Your task to perform on an android device: Open Google Maps and go to "Timeline" Image 0: 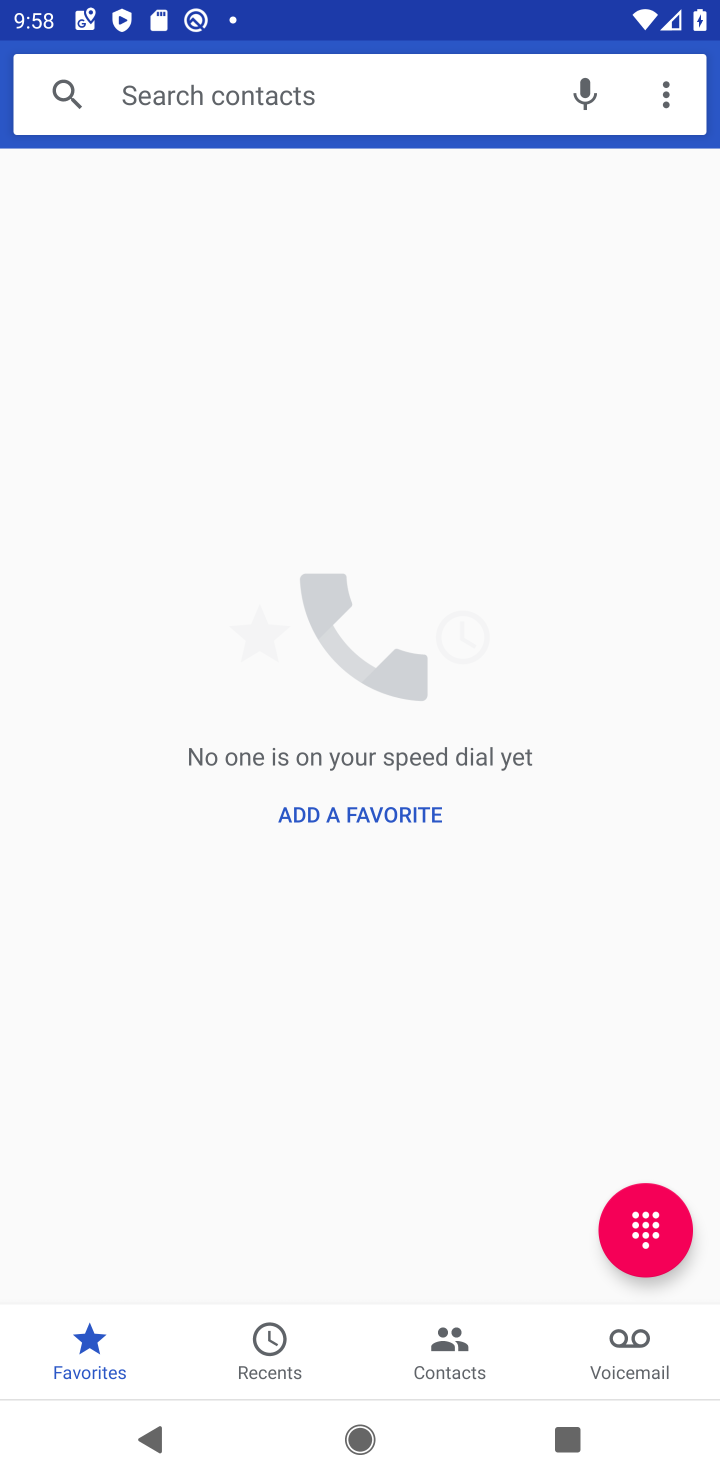
Step 0: press home button
Your task to perform on an android device: Open Google Maps and go to "Timeline" Image 1: 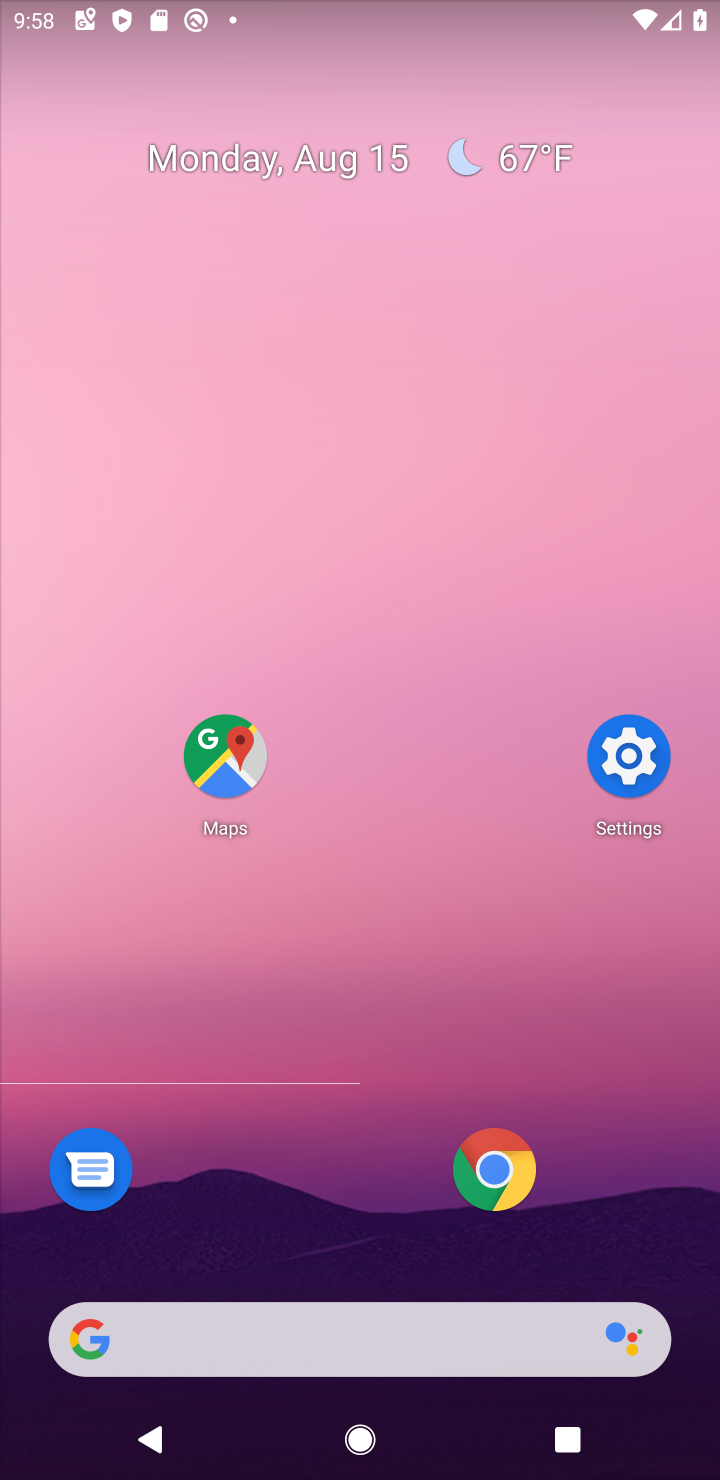
Step 1: click (216, 757)
Your task to perform on an android device: Open Google Maps and go to "Timeline" Image 2: 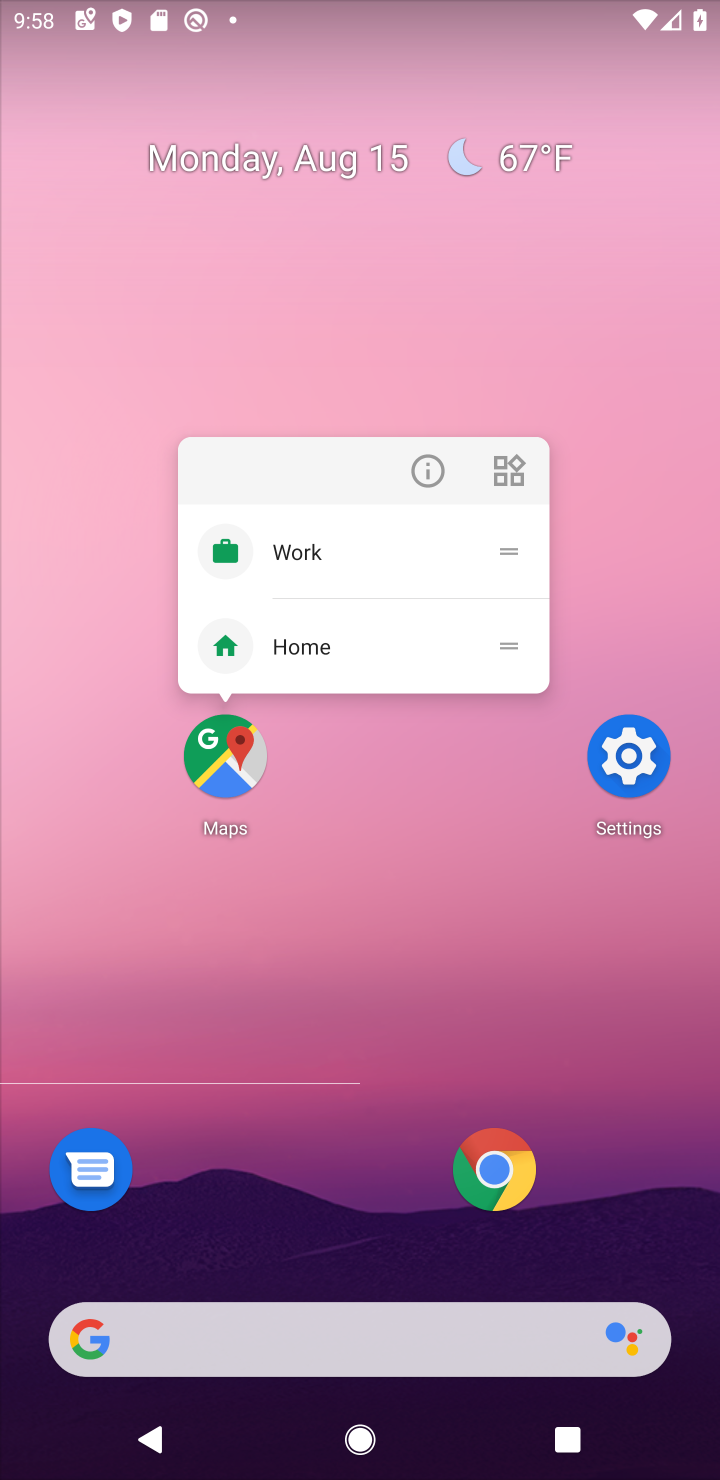
Step 2: click (231, 748)
Your task to perform on an android device: Open Google Maps and go to "Timeline" Image 3: 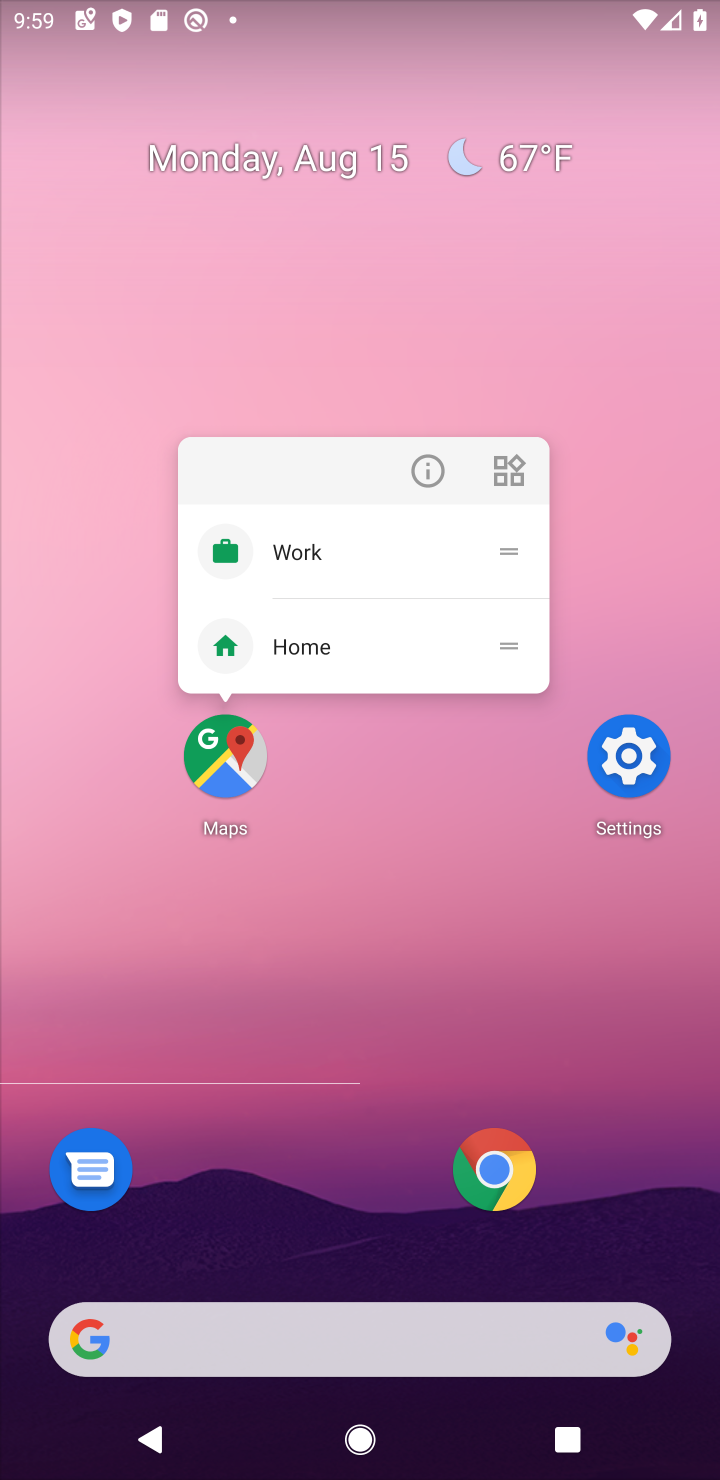
Step 3: click (231, 748)
Your task to perform on an android device: Open Google Maps and go to "Timeline" Image 4: 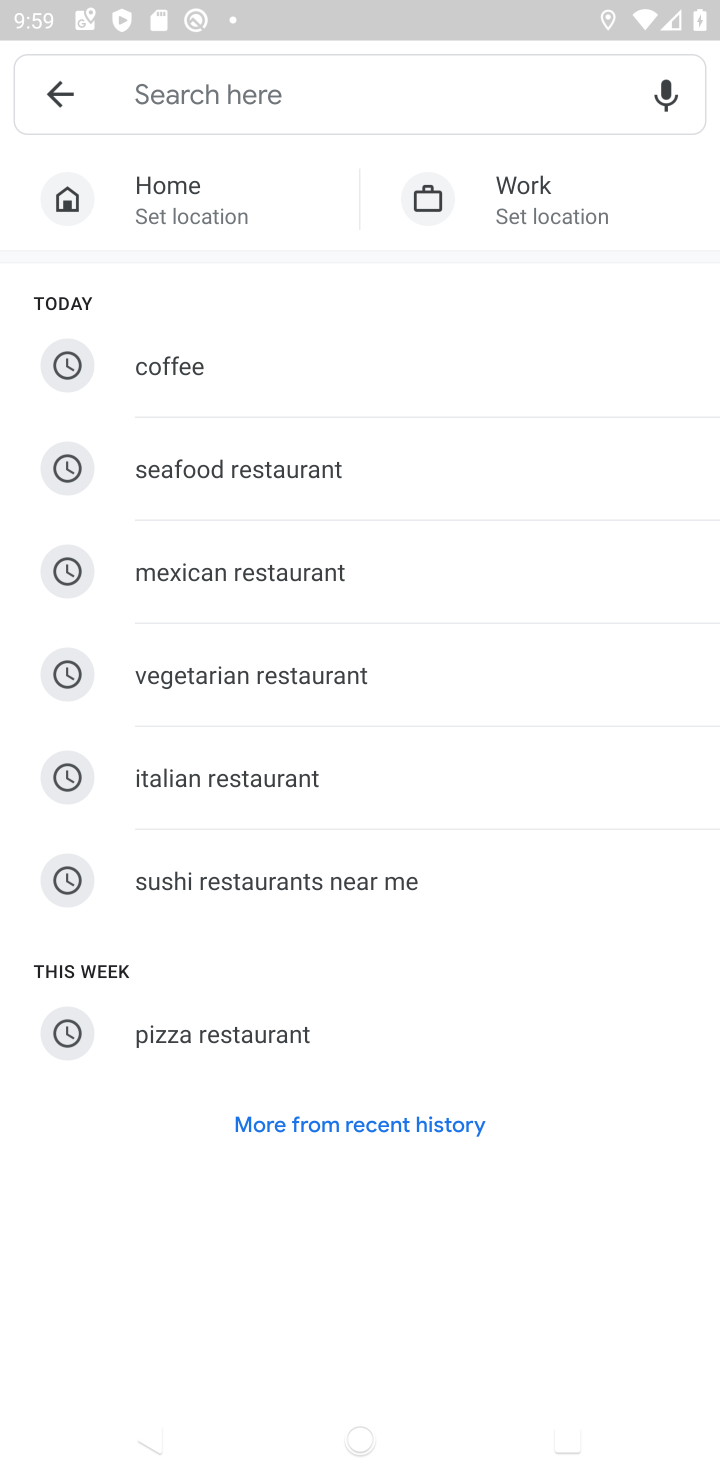
Step 4: click (61, 94)
Your task to perform on an android device: Open Google Maps and go to "Timeline" Image 5: 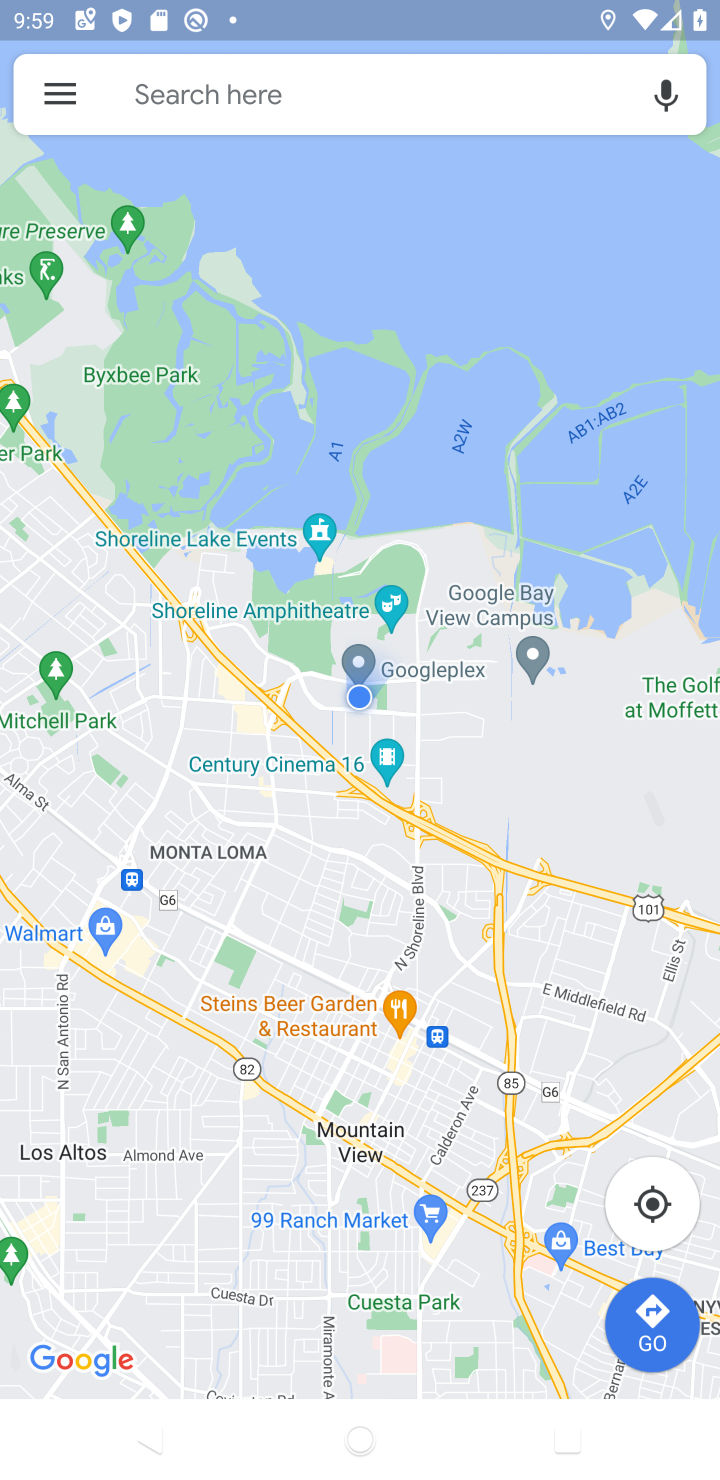
Step 5: click (61, 94)
Your task to perform on an android device: Open Google Maps and go to "Timeline" Image 6: 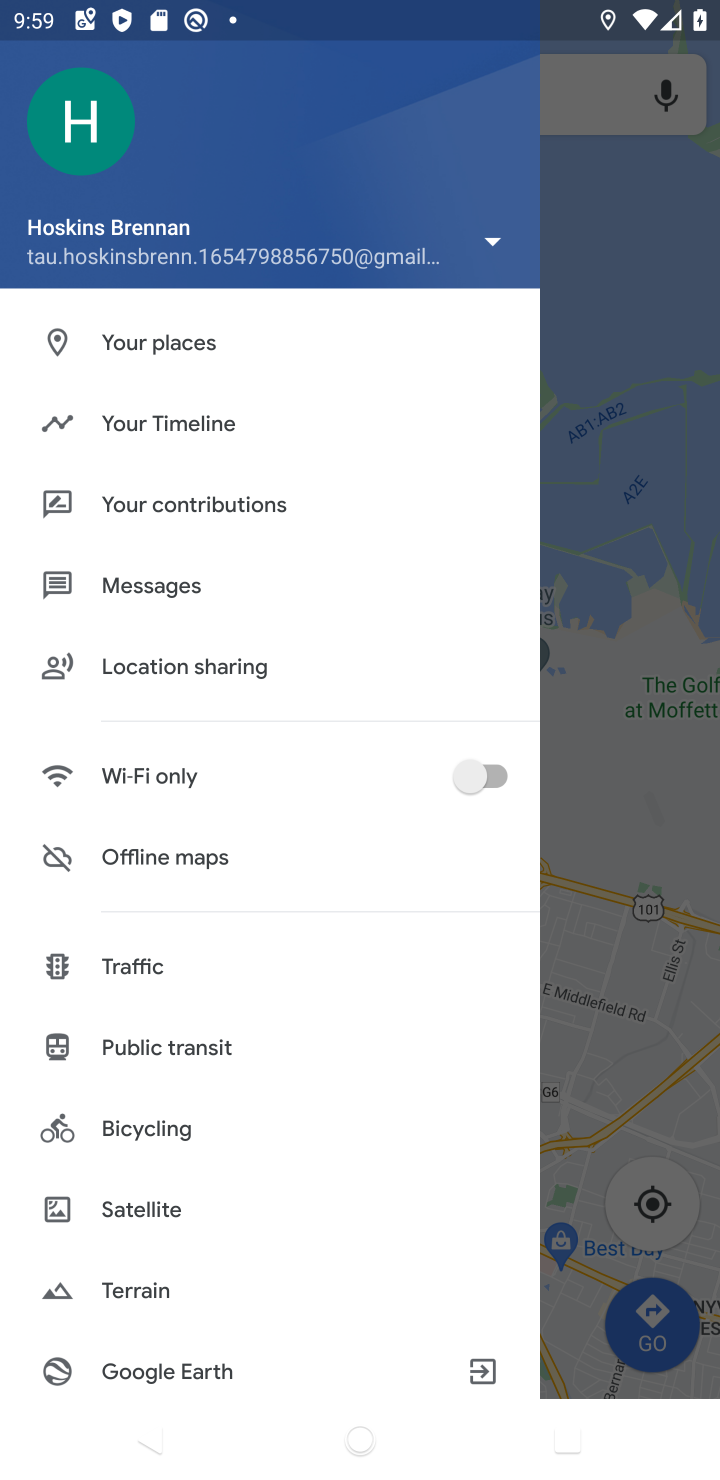
Step 6: click (187, 413)
Your task to perform on an android device: Open Google Maps and go to "Timeline" Image 7: 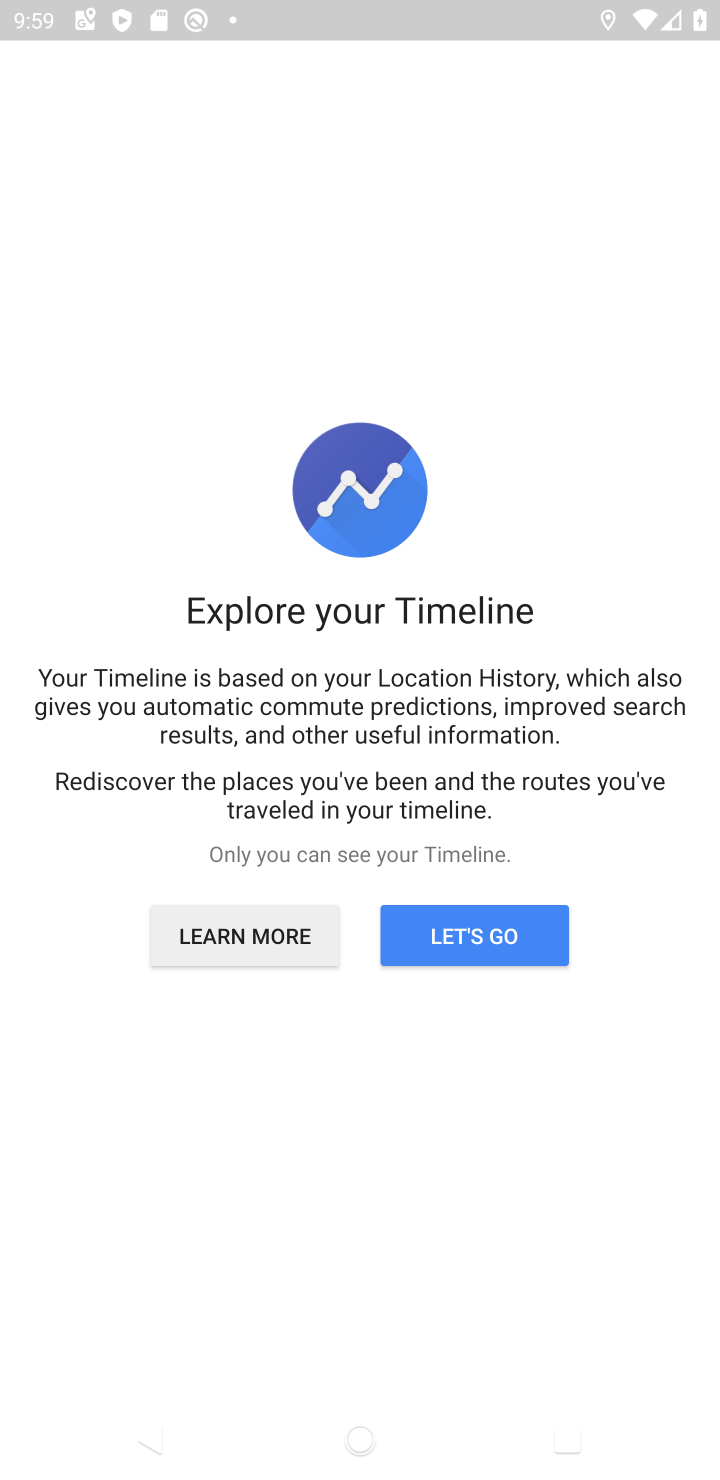
Step 7: click (487, 943)
Your task to perform on an android device: Open Google Maps and go to "Timeline" Image 8: 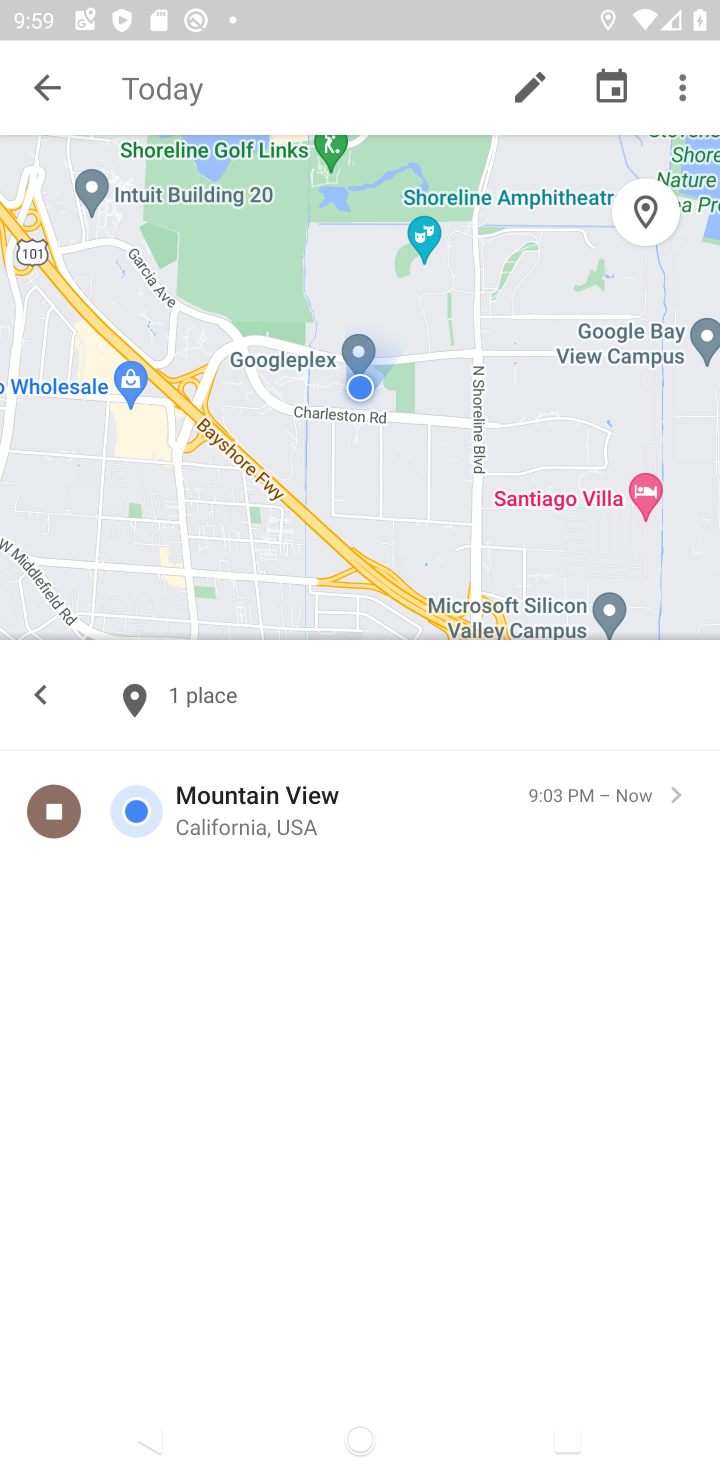
Step 8: task complete